Your task to perform on an android device: turn off notifications settings in the gmail app Image 0: 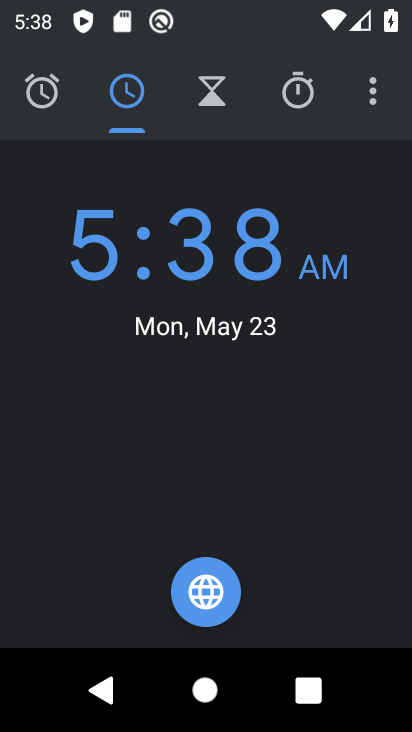
Step 0: press home button
Your task to perform on an android device: turn off notifications settings in the gmail app Image 1: 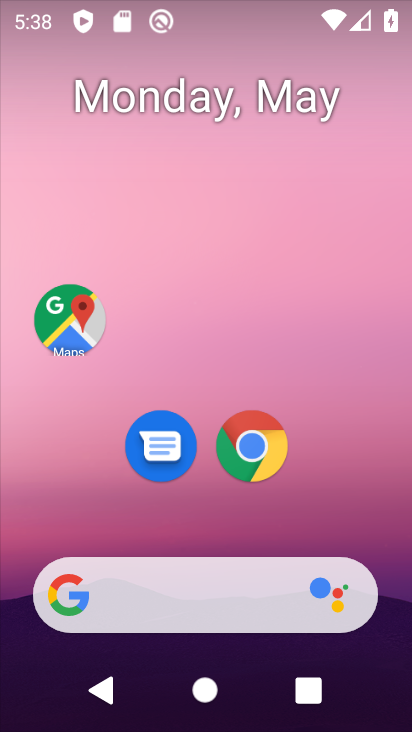
Step 1: drag from (283, 497) to (305, 98)
Your task to perform on an android device: turn off notifications settings in the gmail app Image 2: 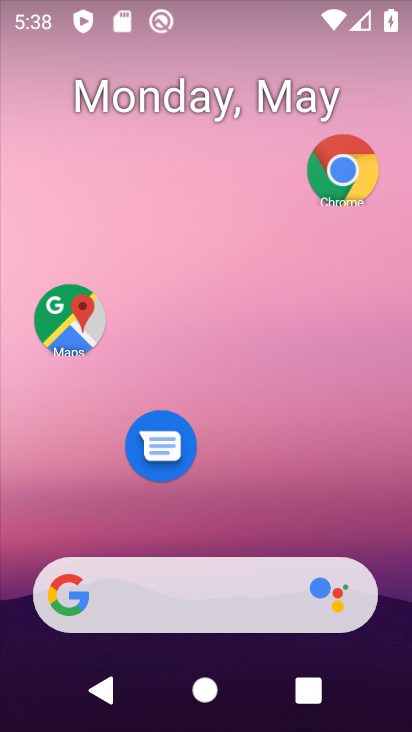
Step 2: drag from (308, 468) to (281, 61)
Your task to perform on an android device: turn off notifications settings in the gmail app Image 3: 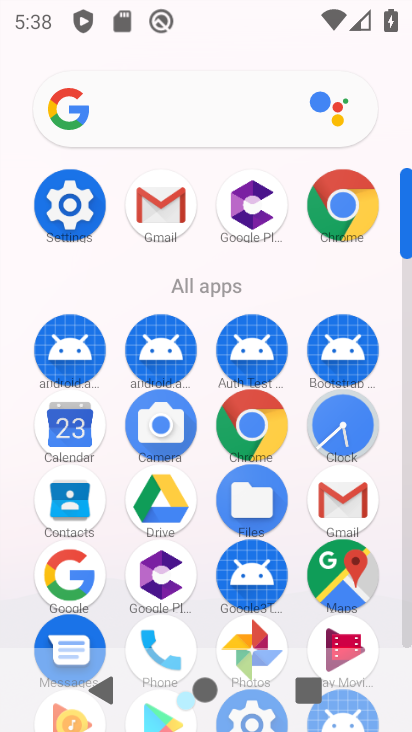
Step 3: click (337, 484)
Your task to perform on an android device: turn off notifications settings in the gmail app Image 4: 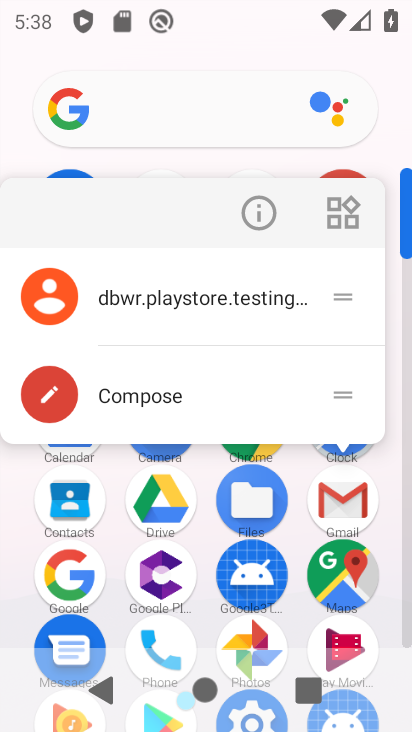
Step 4: click (256, 219)
Your task to perform on an android device: turn off notifications settings in the gmail app Image 5: 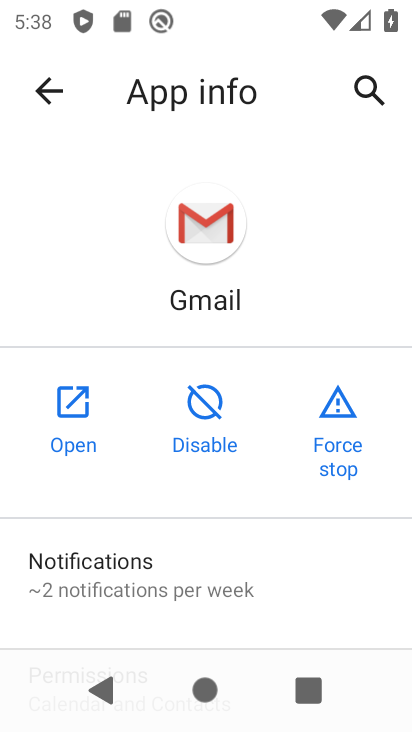
Step 5: click (224, 583)
Your task to perform on an android device: turn off notifications settings in the gmail app Image 6: 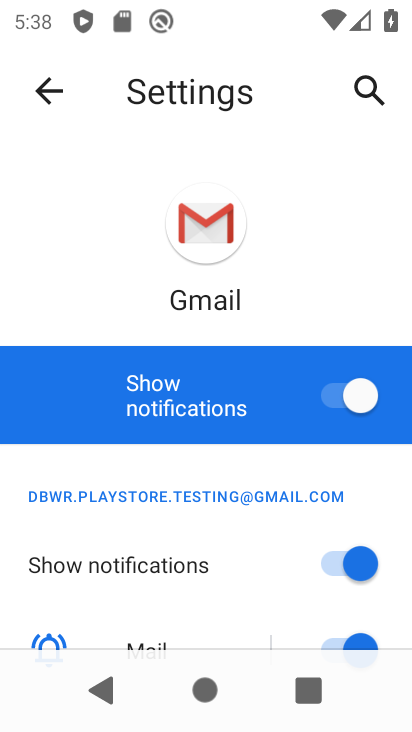
Step 6: click (348, 388)
Your task to perform on an android device: turn off notifications settings in the gmail app Image 7: 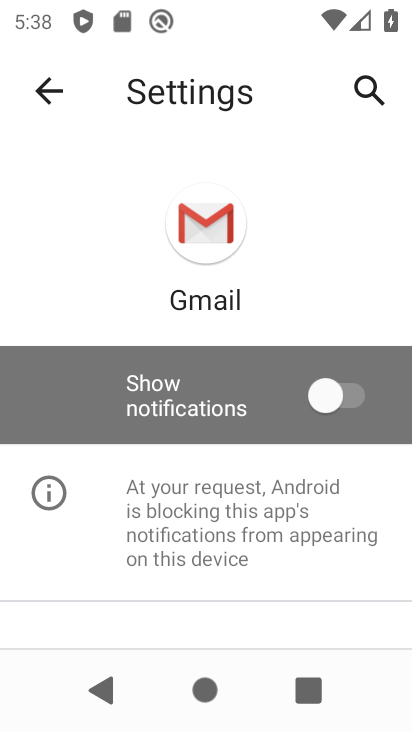
Step 7: task complete